Your task to perform on an android device: remove spam from my inbox in the gmail app Image 0: 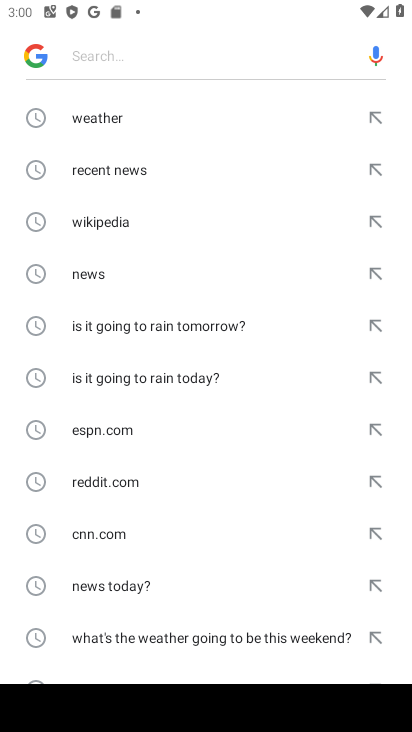
Step 0: press back button
Your task to perform on an android device: remove spam from my inbox in the gmail app Image 1: 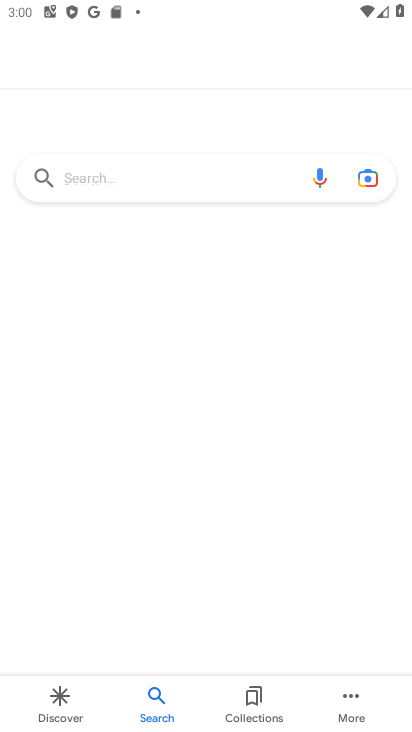
Step 1: press back button
Your task to perform on an android device: remove spam from my inbox in the gmail app Image 2: 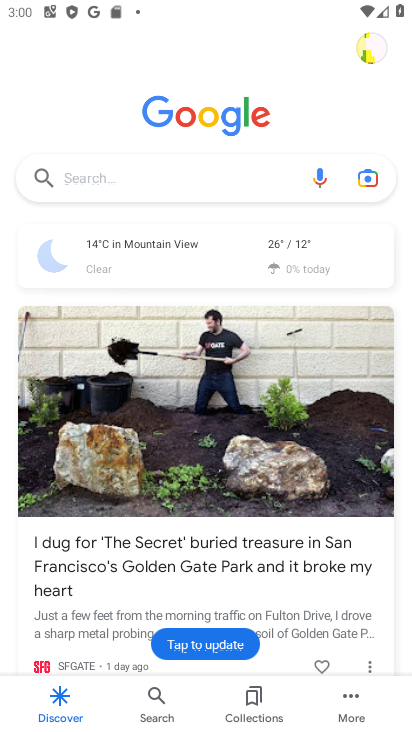
Step 2: press back button
Your task to perform on an android device: remove spam from my inbox in the gmail app Image 3: 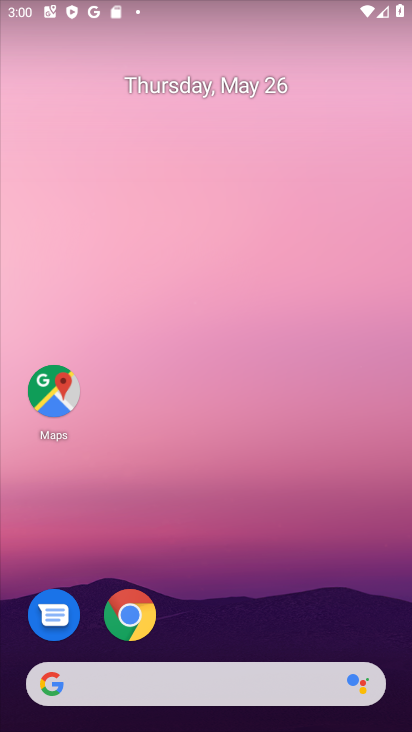
Step 3: drag from (231, 609) to (236, 67)
Your task to perform on an android device: remove spam from my inbox in the gmail app Image 4: 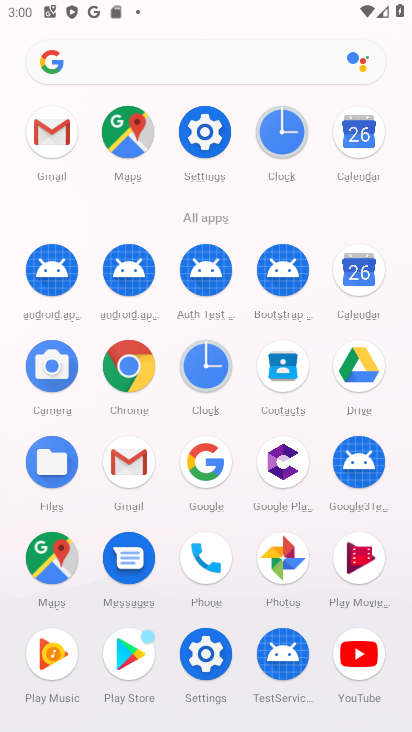
Step 4: click (50, 138)
Your task to perform on an android device: remove spam from my inbox in the gmail app Image 5: 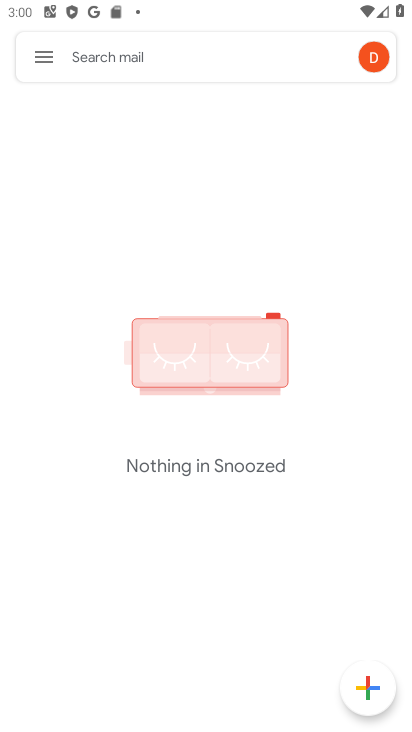
Step 5: click (50, 55)
Your task to perform on an android device: remove spam from my inbox in the gmail app Image 6: 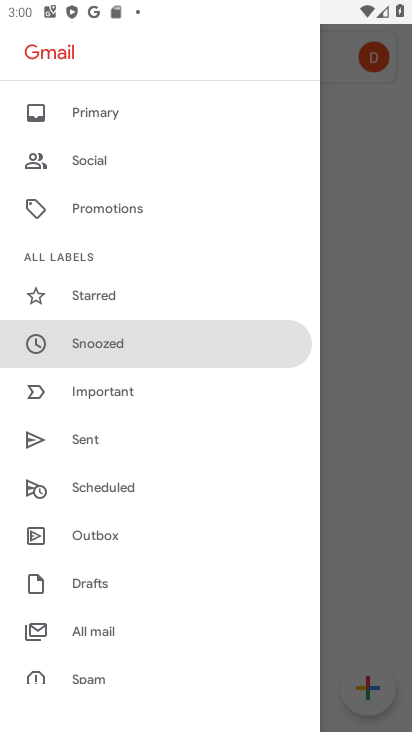
Step 6: click (106, 673)
Your task to perform on an android device: remove spam from my inbox in the gmail app Image 7: 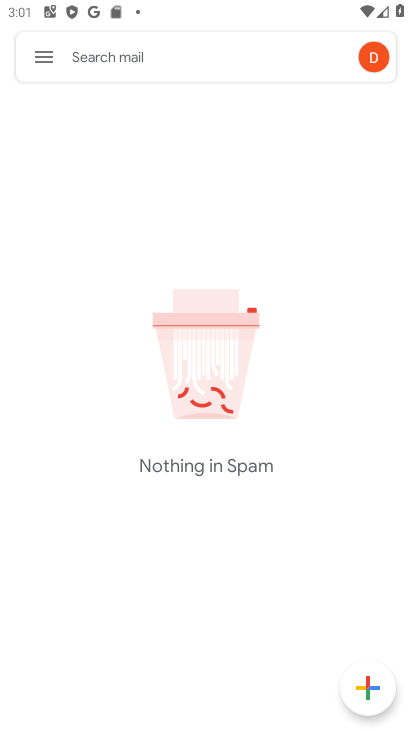
Step 7: task complete